Your task to perform on an android device: turn on javascript in the chrome app Image 0: 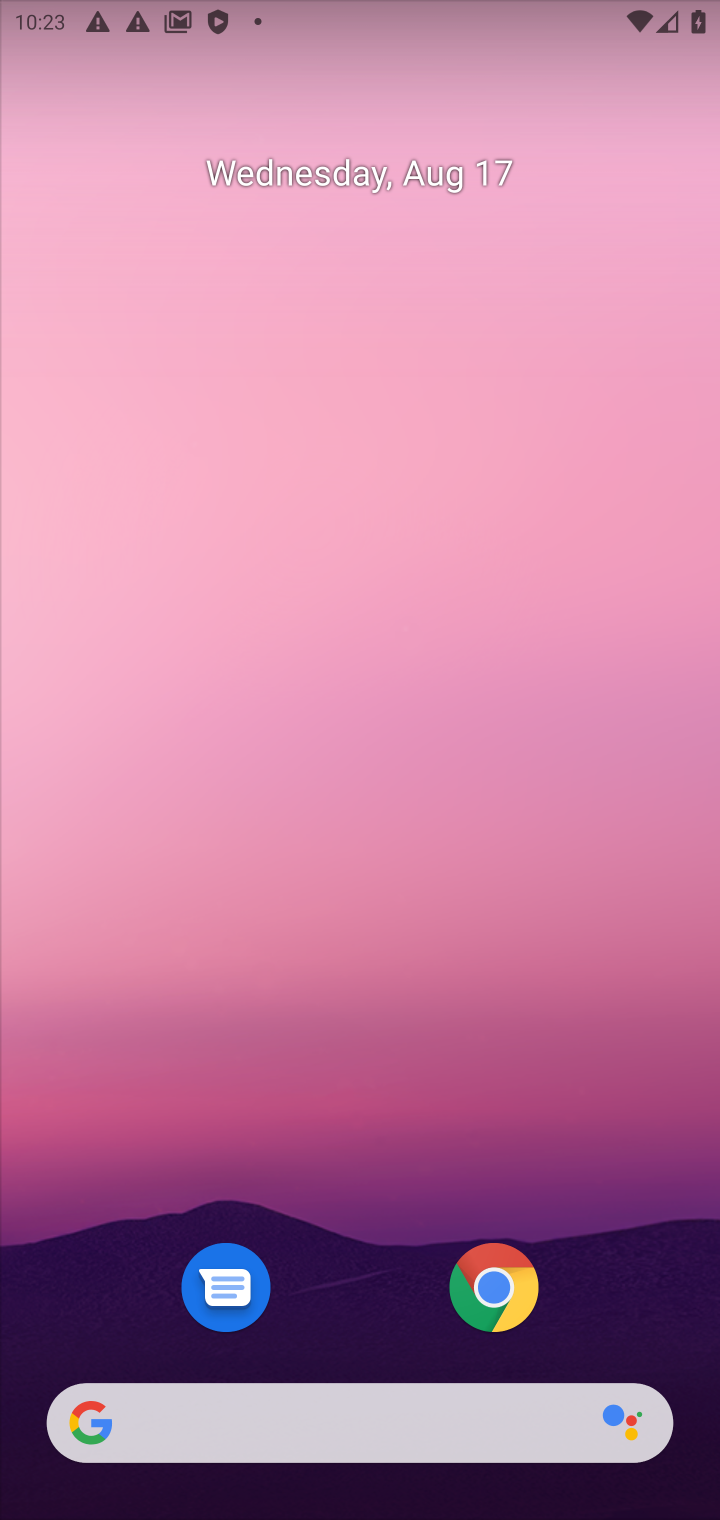
Step 0: click (505, 1288)
Your task to perform on an android device: turn on javascript in the chrome app Image 1: 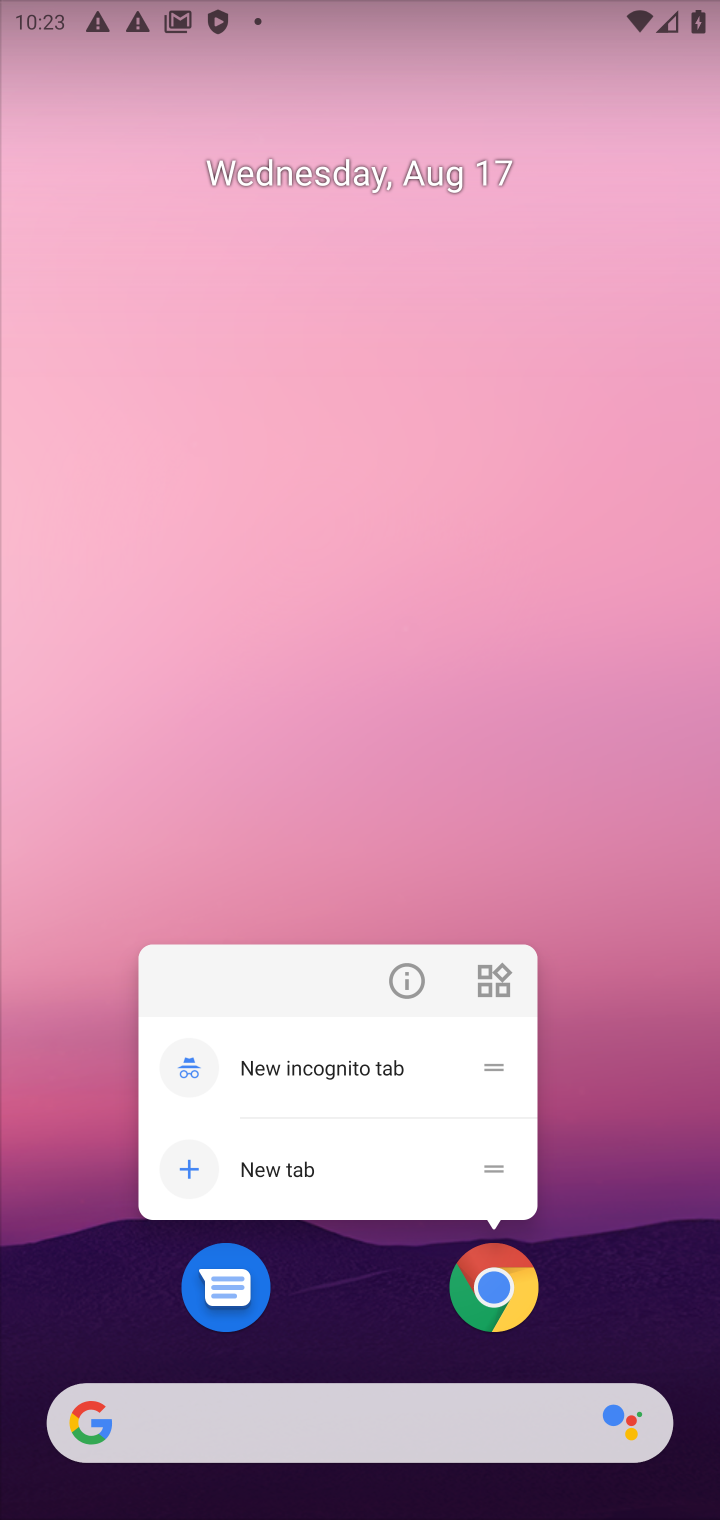
Step 1: click (505, 1286)
Your task to perform on an android device: turn on javascript in the chrome app Image 2: 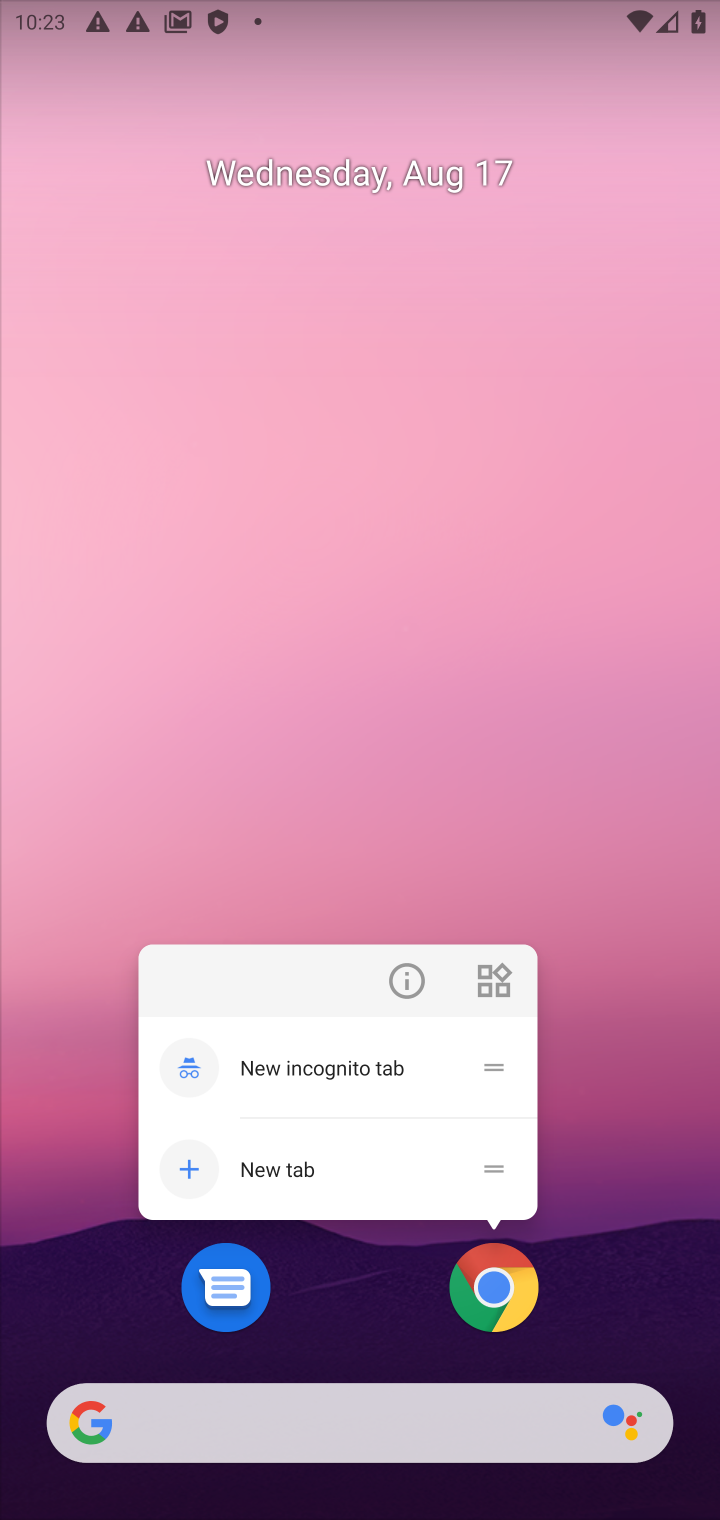
Step 2: click (505, 1286)
Your task to perform on an android device: turn on javascript in the chrome app Image 3: 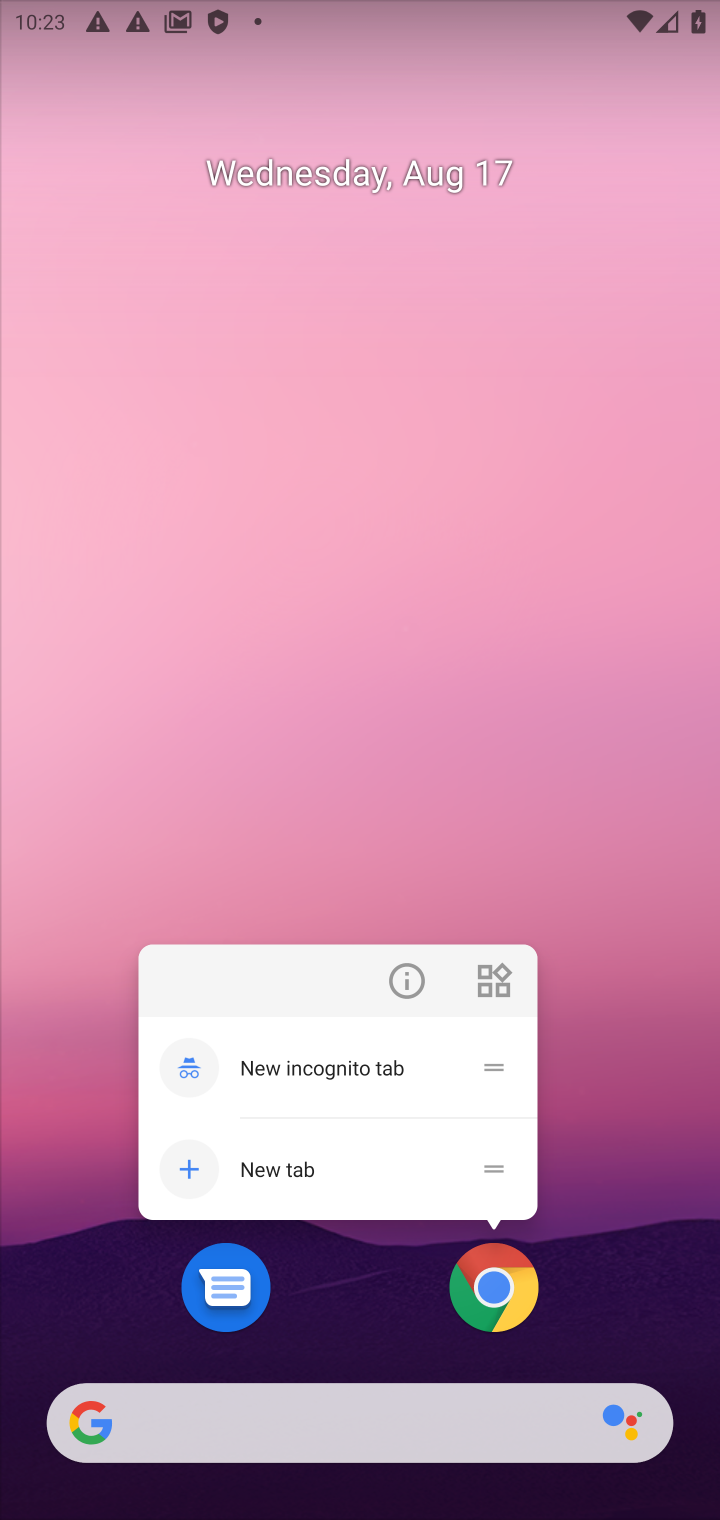
Step 3: click (505, 1286)
Your task to perform on an android device: turn on javascript in the chrome app Image 4: 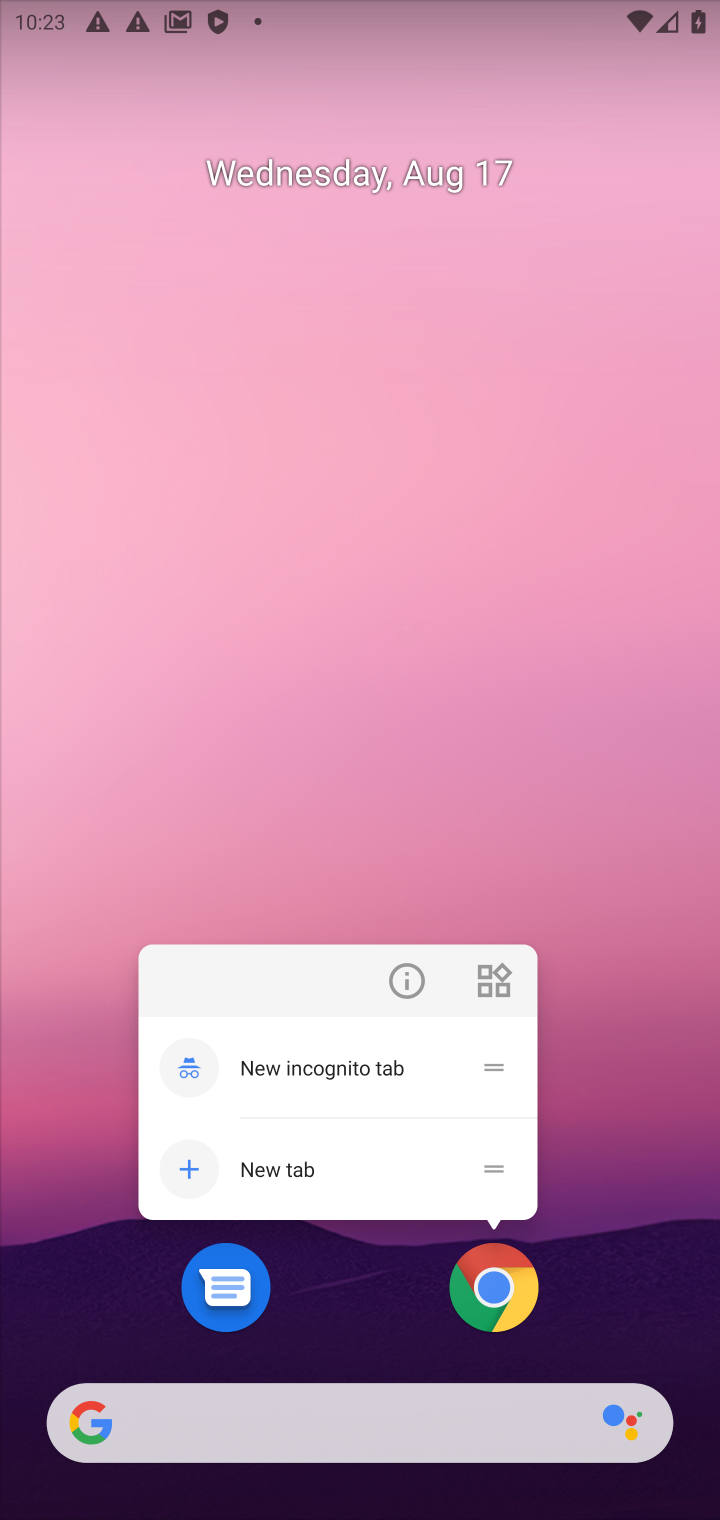
Step 4: click (505, 1286)
Your task to perform on an android device: turn on javascript in the chrome app Image 5: 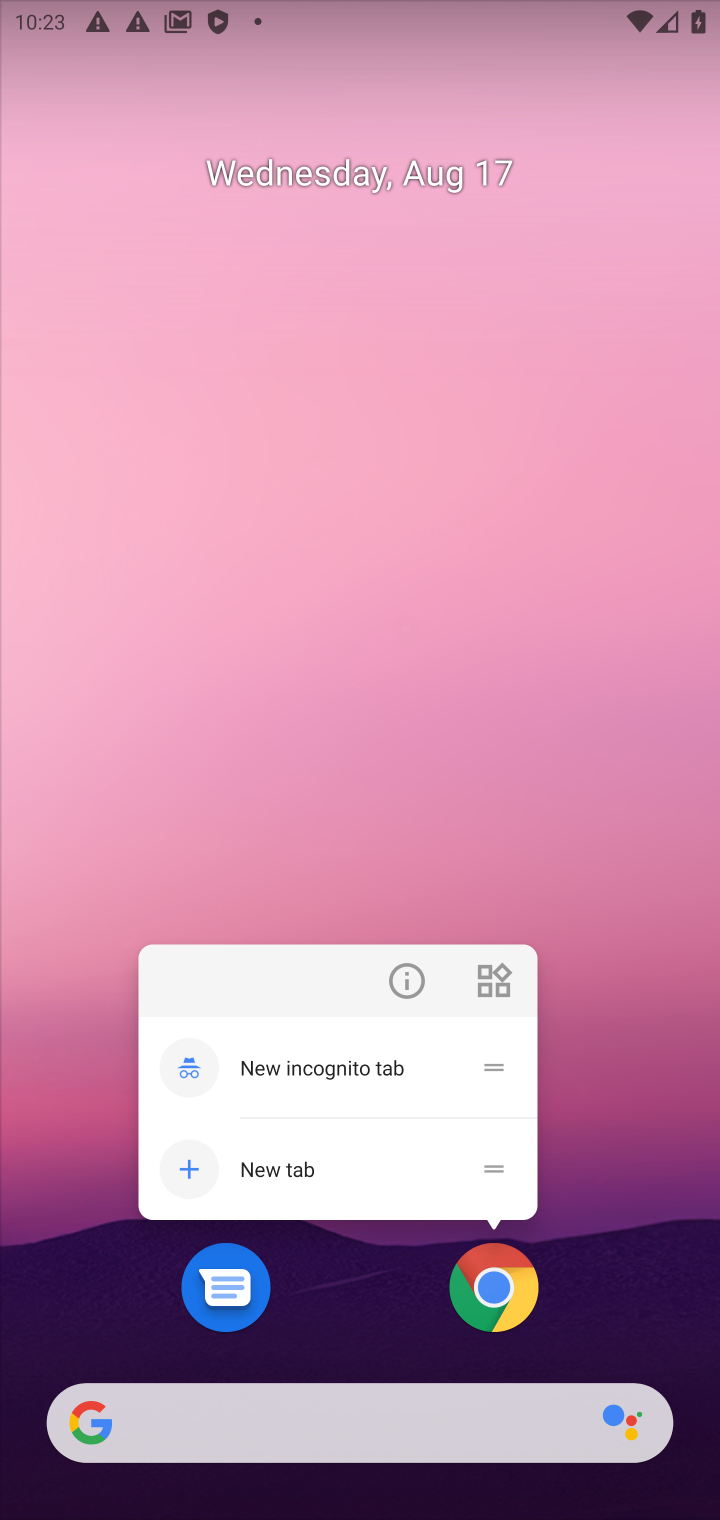
Step 5: click (551, 621)
Your task to perform on an android device: turn on javascript in the chrome app Image 6: 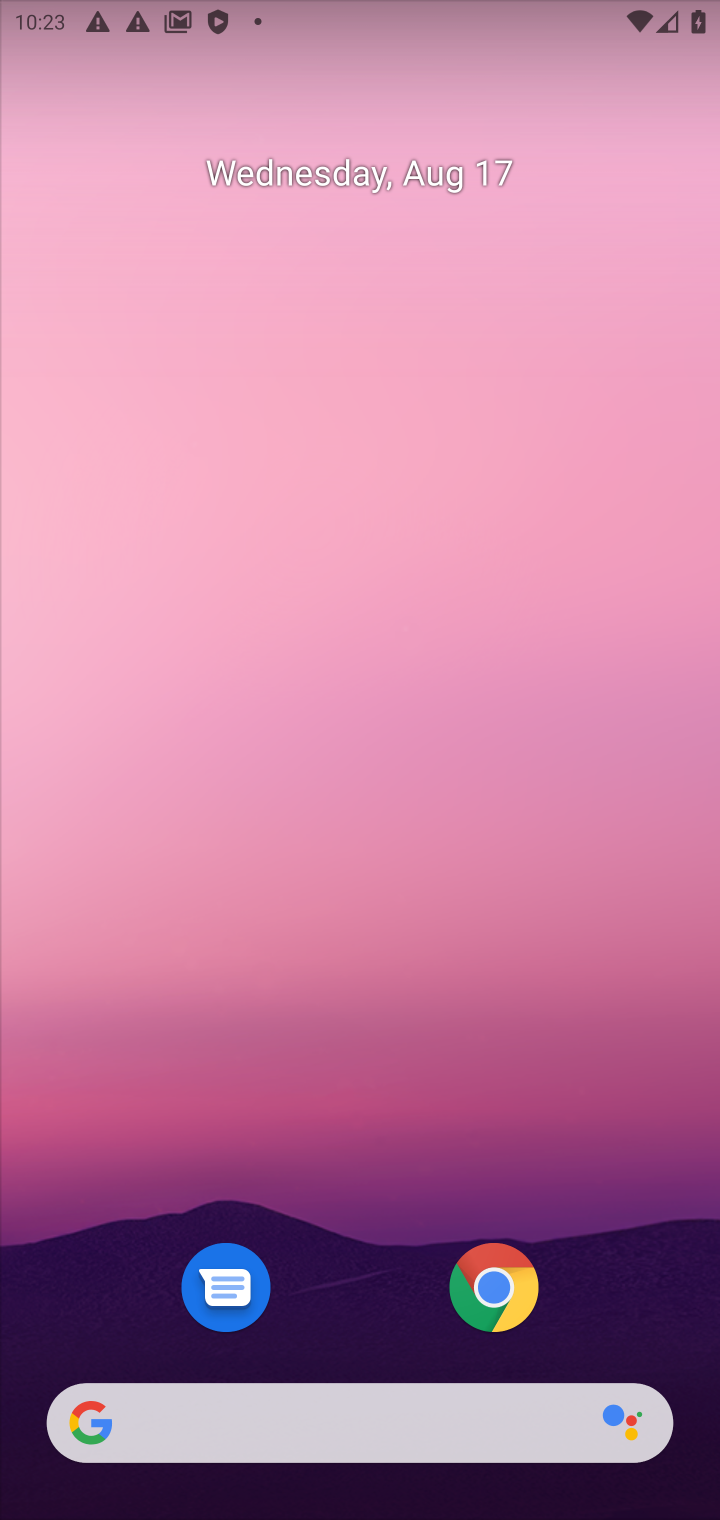
Step 6: click (518, 1293)
Your task to perform on an android device: turn on javascript in the chrome app Image 7: 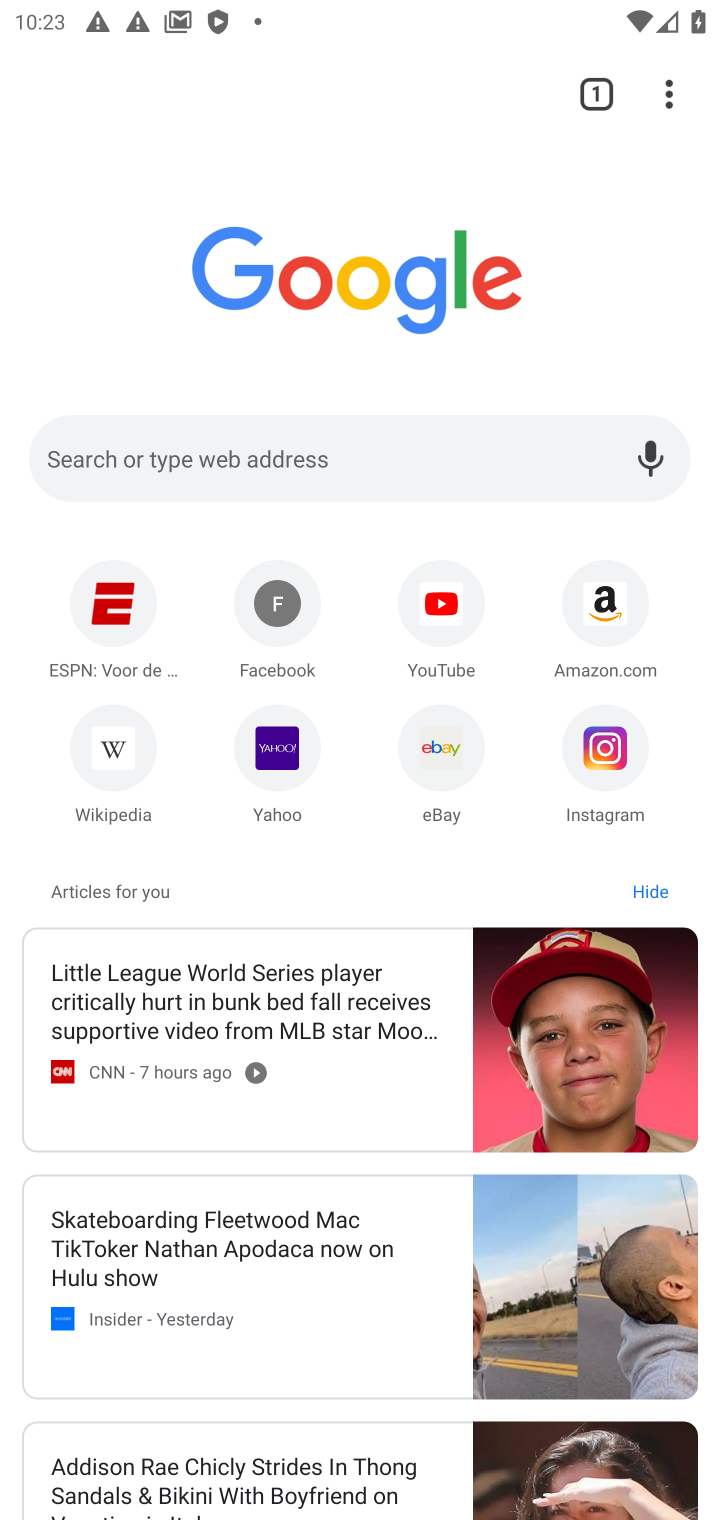
Step 7: drag from (678, 83) to (324, 893)
Your task to perform on an android device: turn on javascript in the chrome app Image 8: 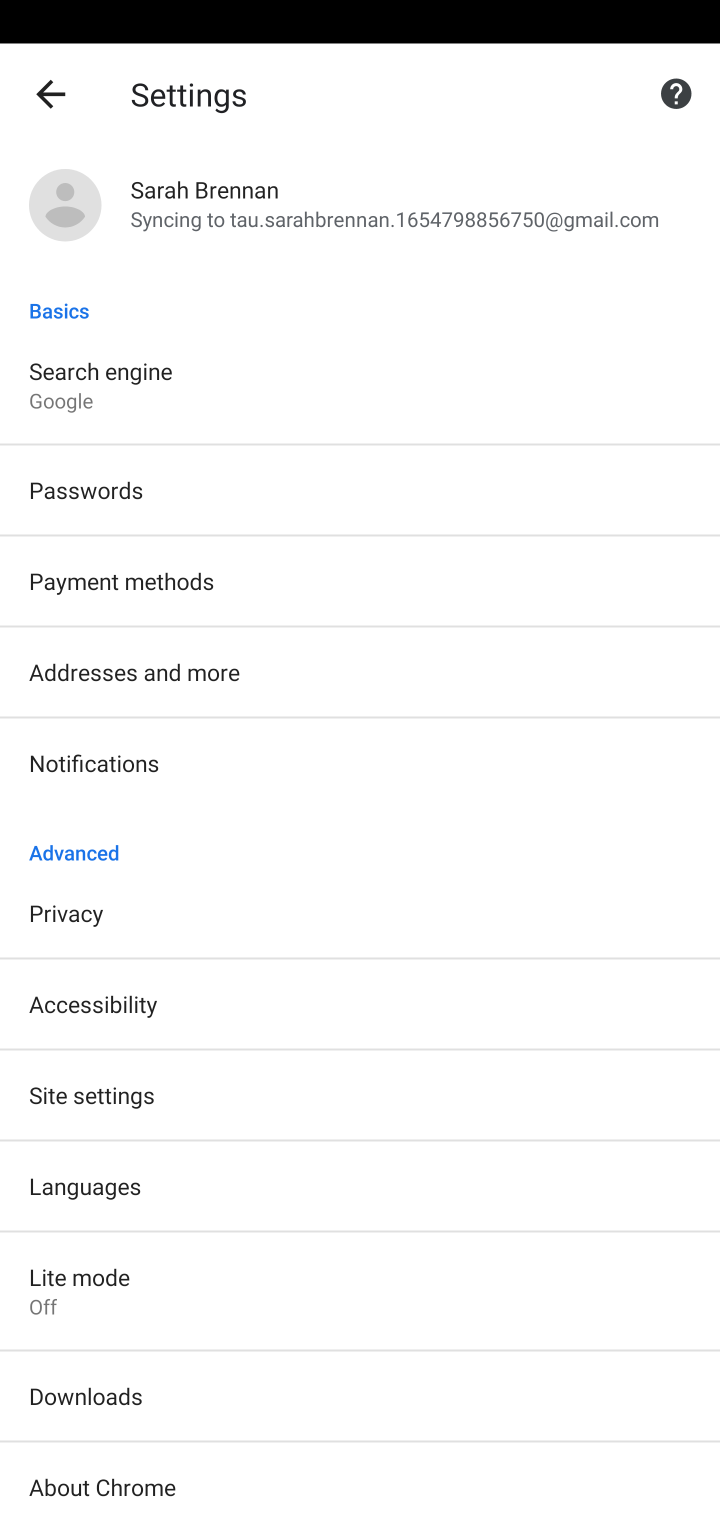
Step 8: click (72, 1107)
Your task to perform on an android device: turn on javascript in the chrome app Image 9: 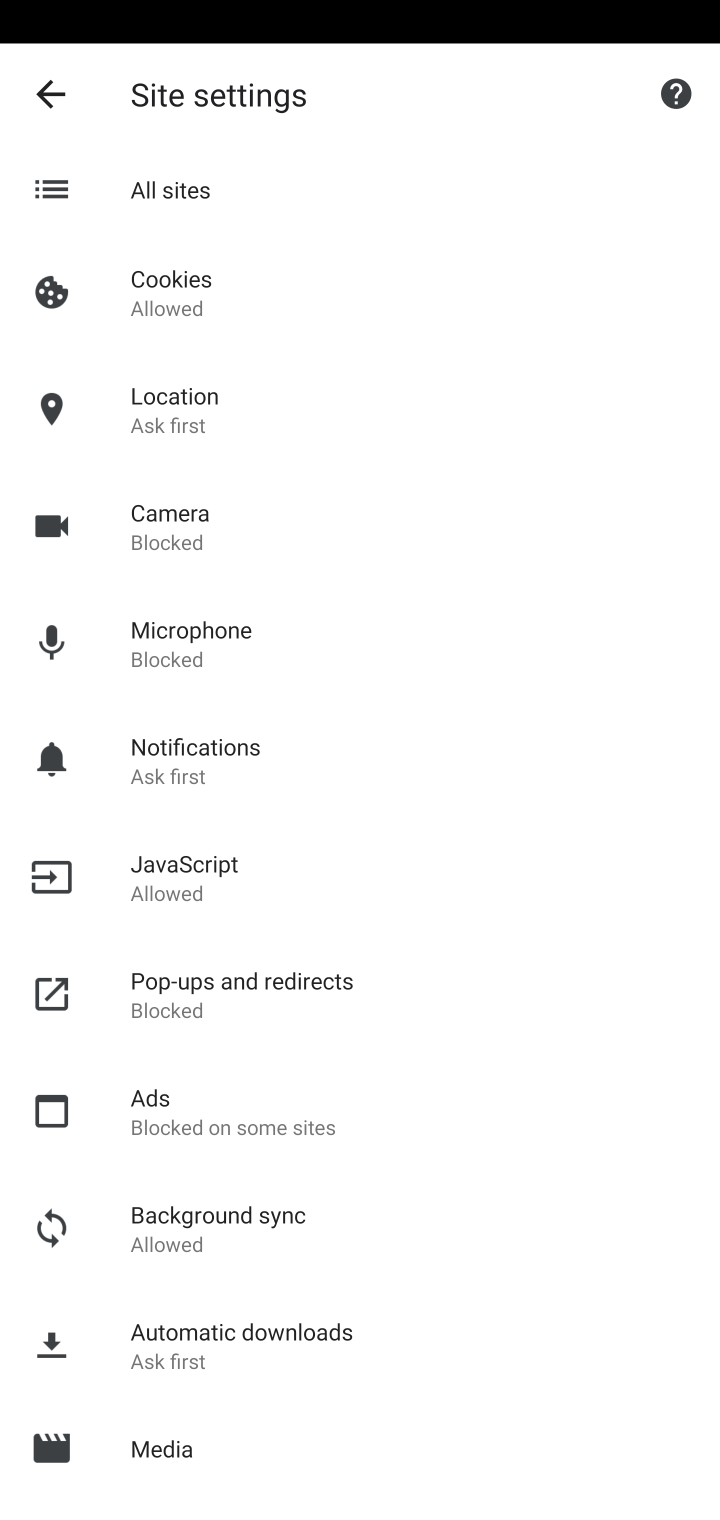
Step 9: click (148, 882)
Your task to perform on an android device: turn on javascript in the chrome app Image 10: 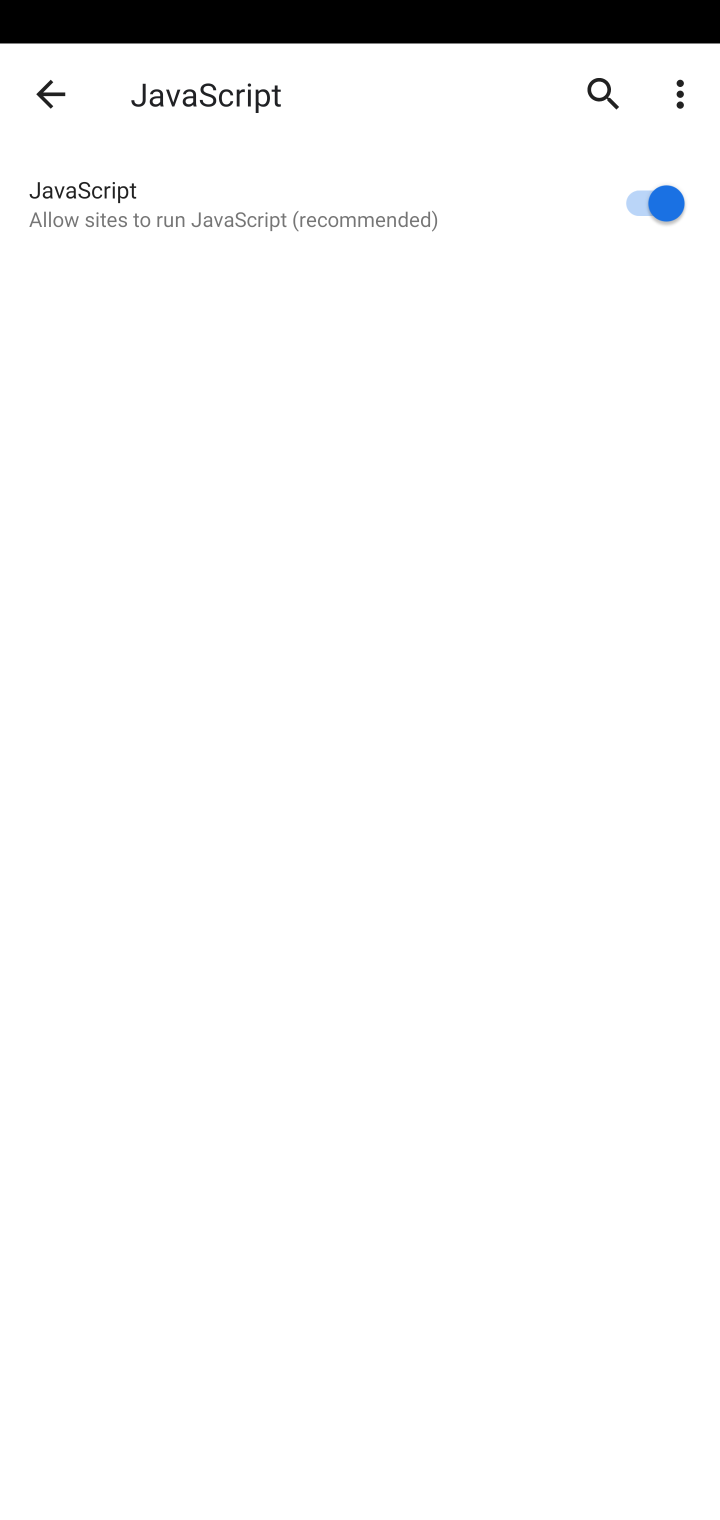
Step 10: task complete